Your task to perform on an android device: What's the weather? Image 0: 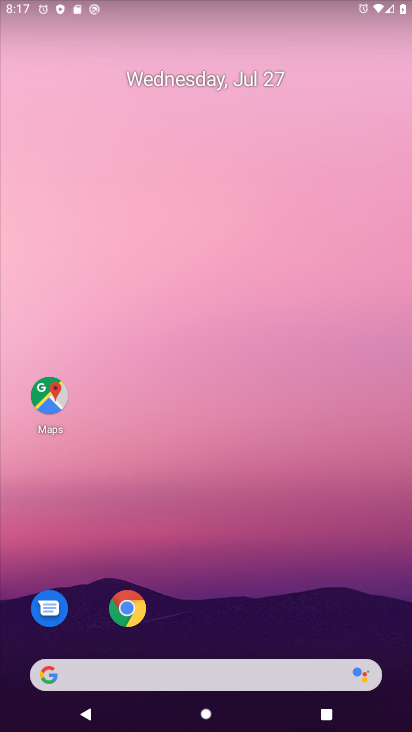
Step 0: click (140, 675)
Your task to perform on an android device: What's the weather? Image 1: 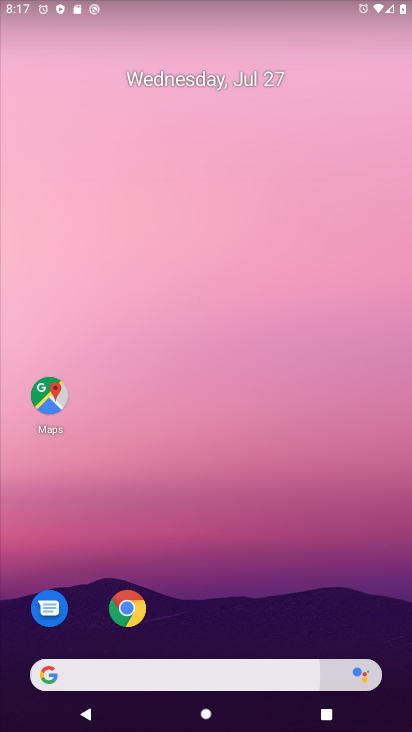
Step 1: click (140, 675)
Your task to perform on an android device: What's the weather? Image 2: 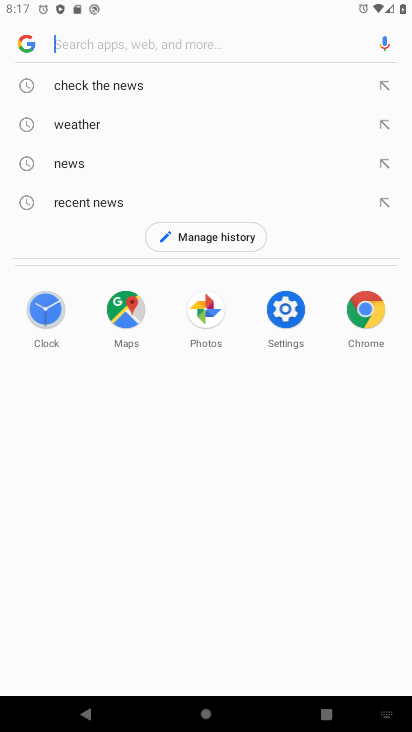
Step 2: type "What's the weather?"
Your task to perform on an android device: What's the weather? Image 3: 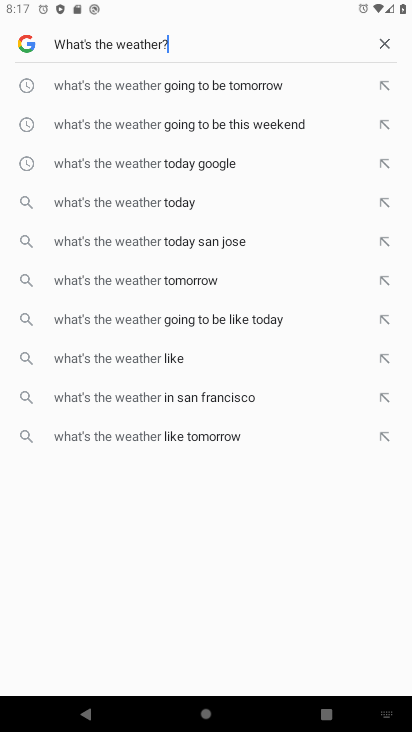
Step 3: press enter
Your task to perform on an android device: What's the weather? Image 4: 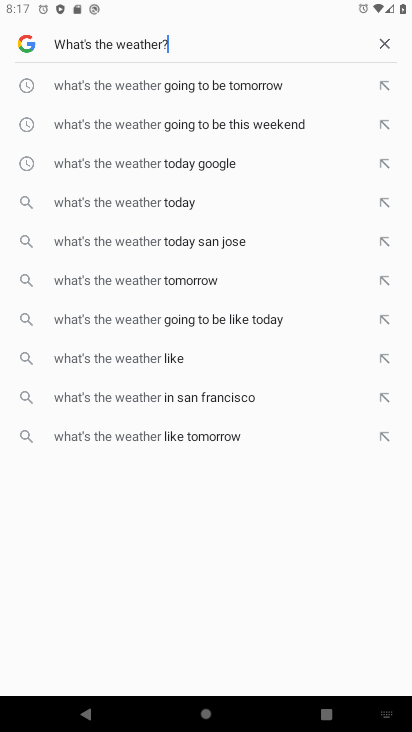
Step 4: type ""
Your task to perform on an android device: What's the weather? Image 5: 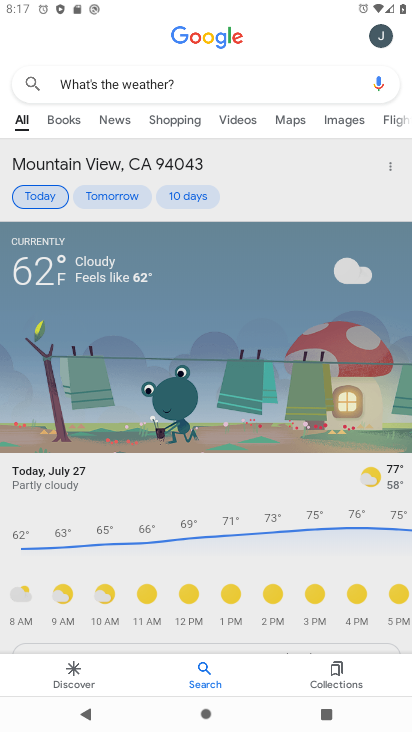
Step 5: task complete